Your task to perform on an android device: turn pop-ups off in chrome Image 0: 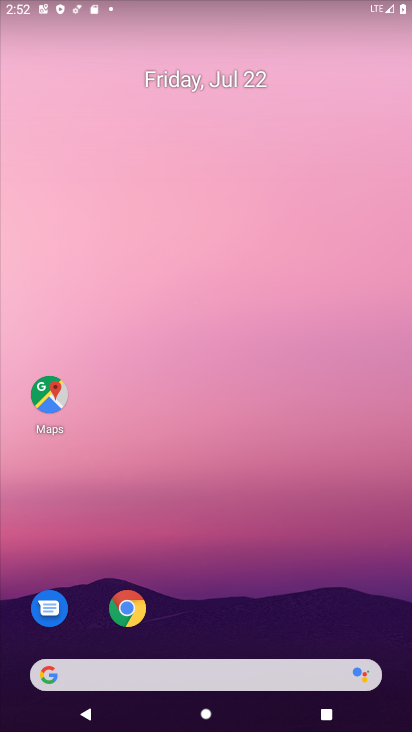
Step 0: click (130, 614)
Your task to perform on an android device: turn pop-ups off in chrome Image 1: 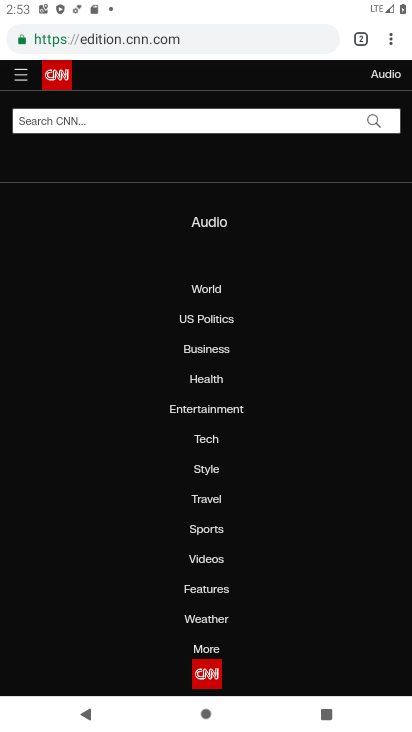
Step 1: click (393, 44)
Your task to perform on an android device: turn pop-ups off in chrome Image 2: 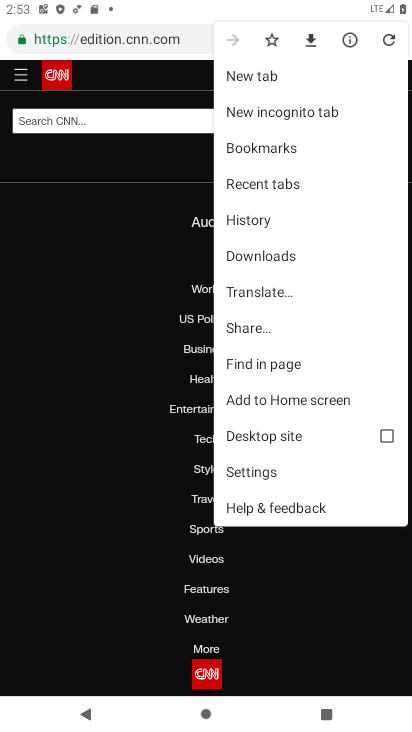
Step 2: click (263, 469)
Your task to perform on an android device: turn pop-ups off in chrome Image 3: 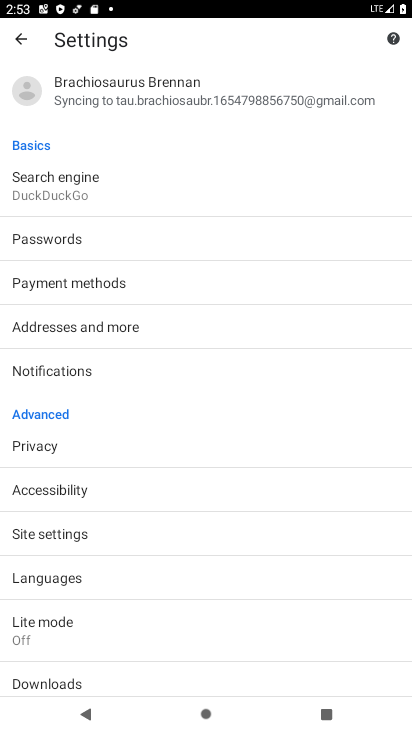
Step 3: click (138, 527)
Your task to perform on an android device: turn pop-ups off in chrome Image 4: 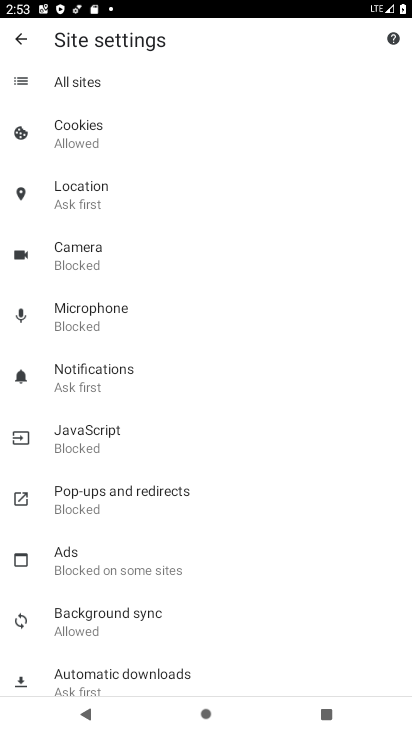
Step 4: click (107, 490)
Your task to perform on an android device: turn pop-ups off in chrome Image 5: 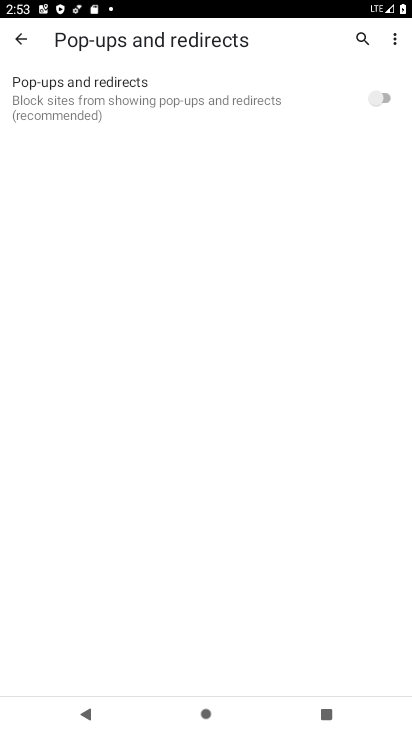
Step 5: task complete